Your task to perform on an android device: Open the Play Movies app and select the watchlist tab. Image 0: 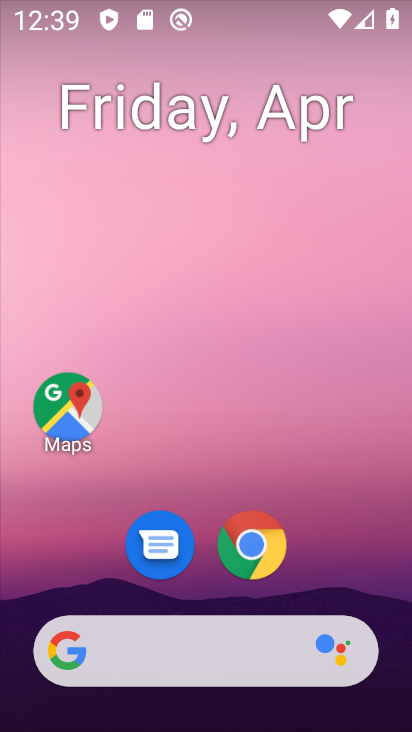
Step 0: press home button
Your task to perform on an android device: Open the Play Movies app and select the watchlist tab. Image 1: 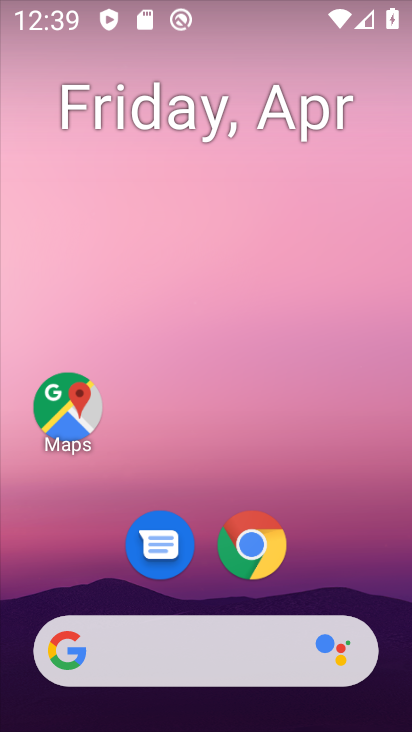
Step 1: drag from (344, 484) to (315, 2)
Your task to perform on an android device: Open the Play Movies app and select the watchlist tab. Image 2: 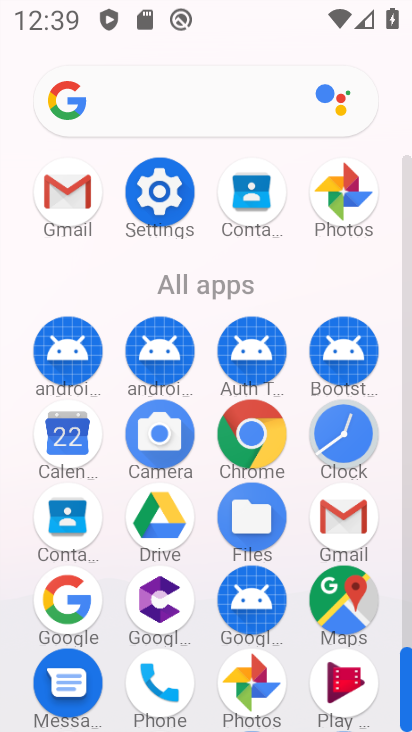
Step 2: click (336, 678)
Your task to perform on an android device: Open the Play Movies app and select the watchlist tab. Image 3: 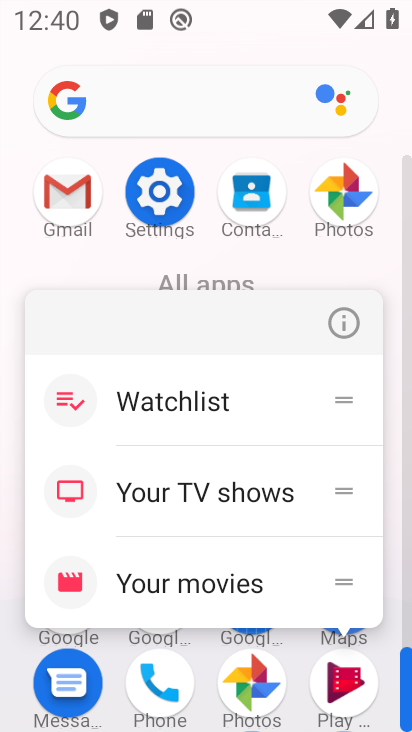
Step 3: click (338, 684)
Your task to perform on an android device: Open the Play Movies app and select the watchlist tab. Image 4: 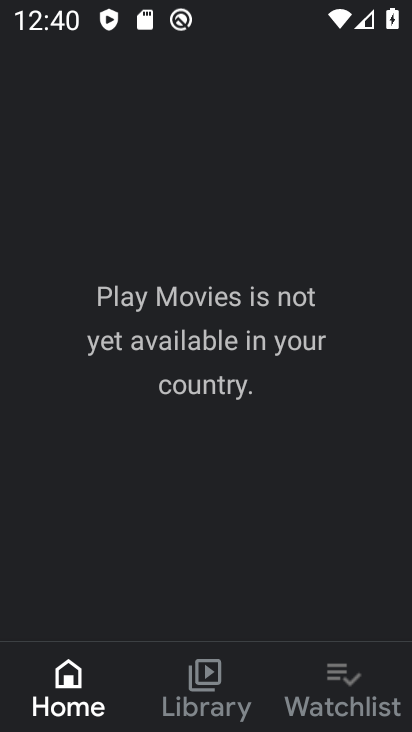
Step 4: click (338, 684)
Your task to perform on an android device: Open the Play Movies app and select the watchlist tab. Image 5: 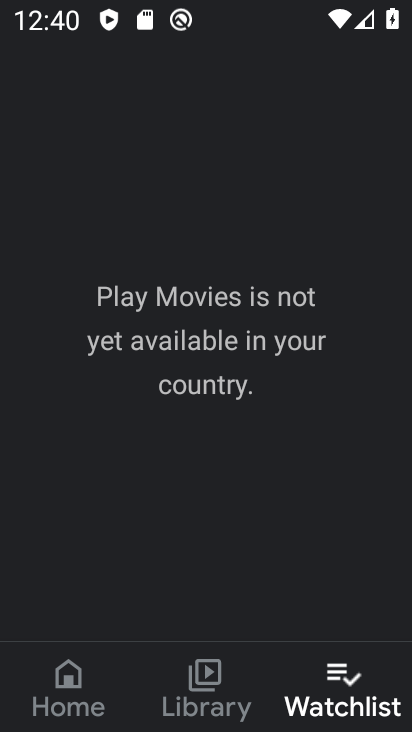
Step 5: task complete